Your task to perform on an android device: see creations saved in the google photos Image 0: 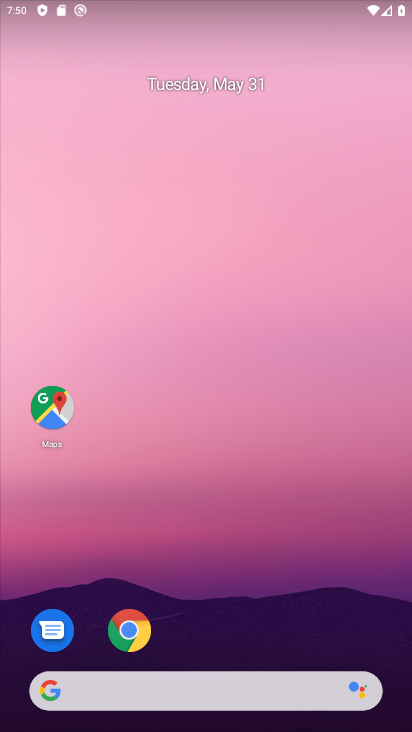
Step 0: drag from (230, 641) to (205, 282)
Your task to perform on an android device: see creations saved in the google photos Image 1: 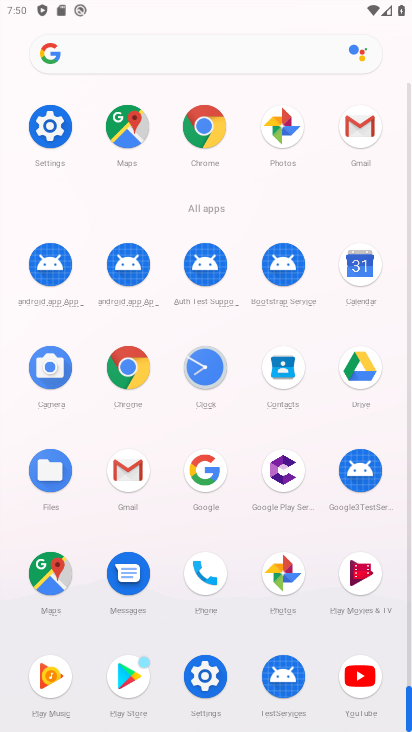
Step 1: click (283, 567)
Your task to perform on an android device: see creations saved in the google photos Image 2: 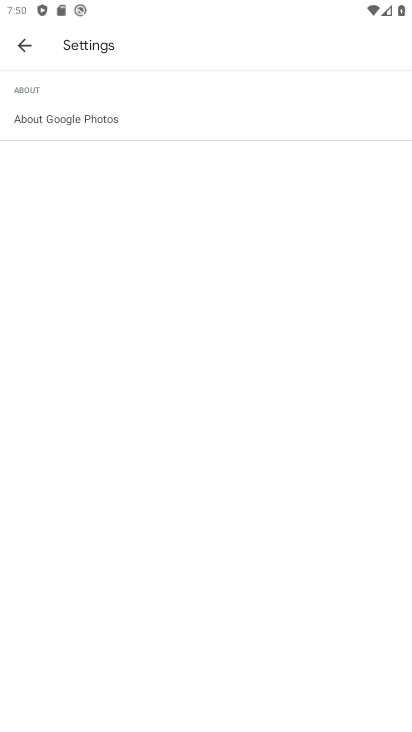
Step 2: click (26, 50)
Your task to perform on an android device: see creations saved in the google photos Image 3: 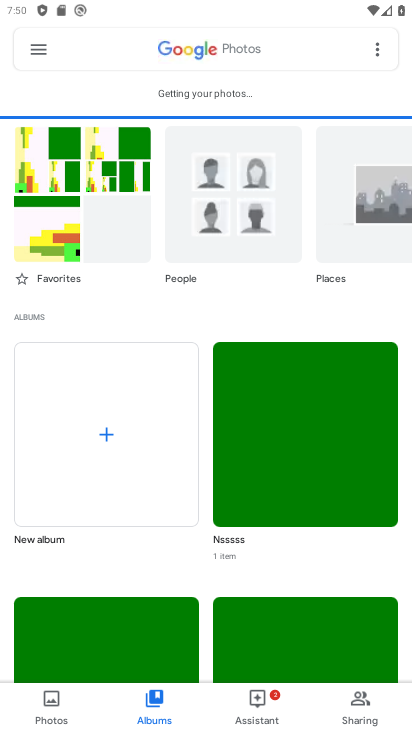
Step 3: click (42, 147)
Your task to perform on an android device: see creations saved in the google photos Image 4: 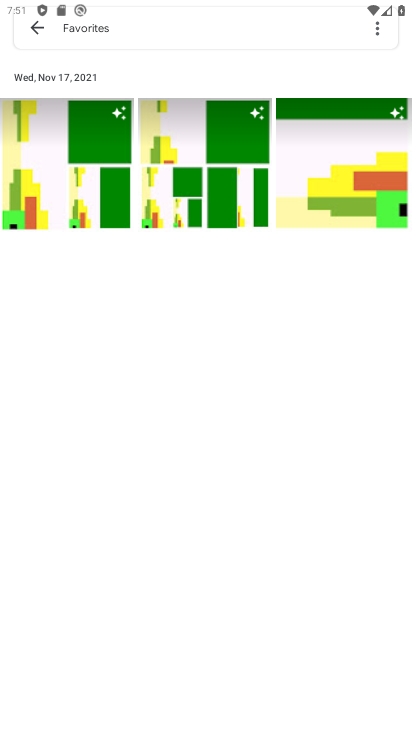
Step 4: task complete